Your task to perform on an android device: check android version Image 0: 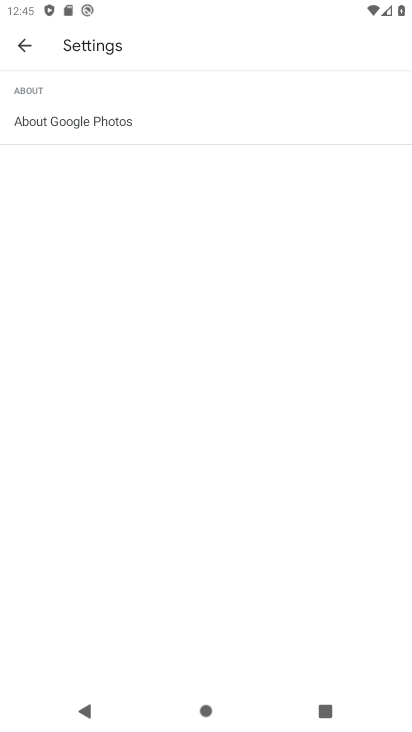
Step 0: press home button
Your task to perform on an android device: check android version Image 1: 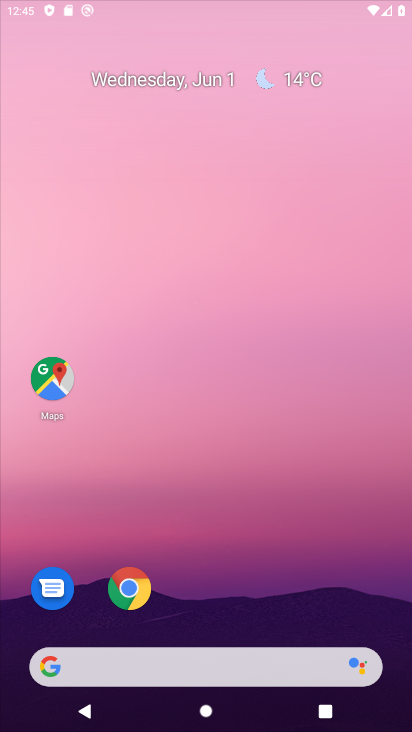
Step 1: drag from (268, 398) to (240, 19)
Your task to perform on an android device: check android version Image 2: 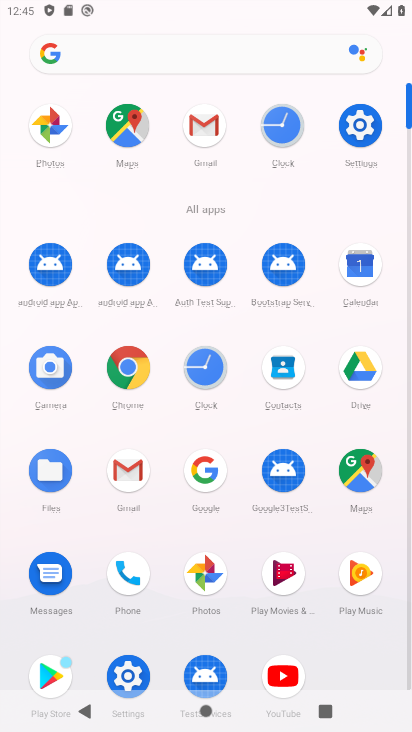
Step 2: click (361, 140)
Your task to perform on an android device: check android version Image 3: 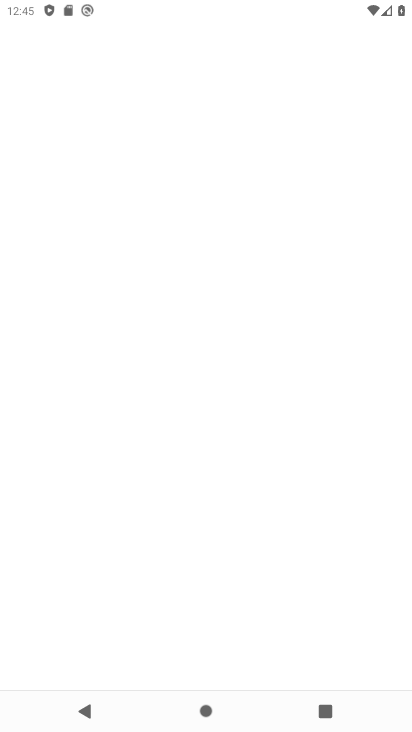
Step 3: drag from (258, 552) to (257, 85)
Your task to perform on an android device: check android version Image 4: 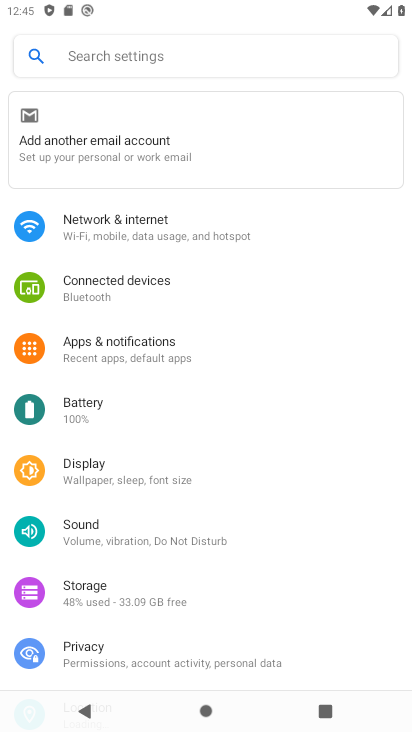
Step 4: drag from (250, 634) to (317, 63)
Your task to perform on an android device: check android version Image 5: 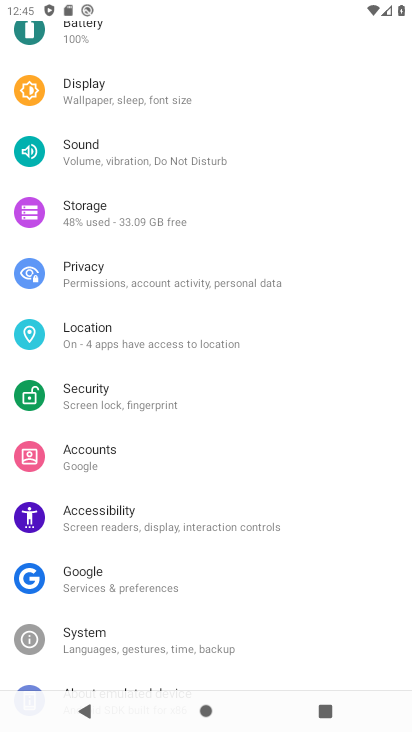
Step 5: drag from (212, 537) to (221, 40)
Your task to perform on an android device: check android version Image 6: 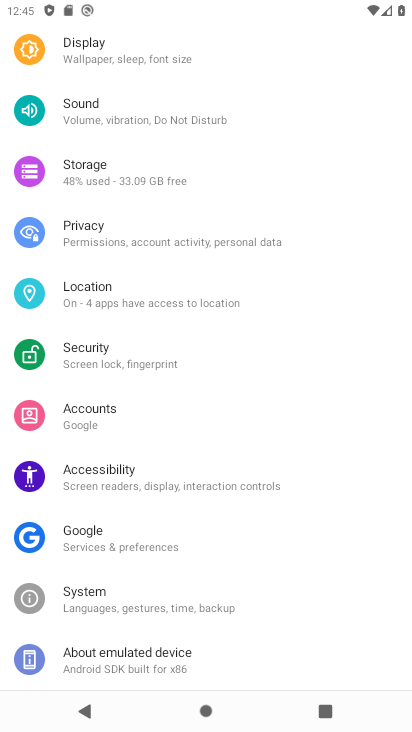
Step 6: click (158, 646)
Your task to perform on an android device: check android version Image 7: 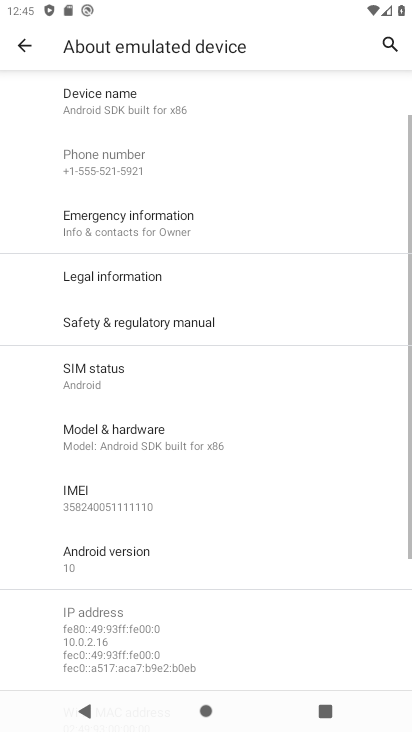
Step 7: click (210, 548)
Your task to perform on an android device: check android version Image 8: 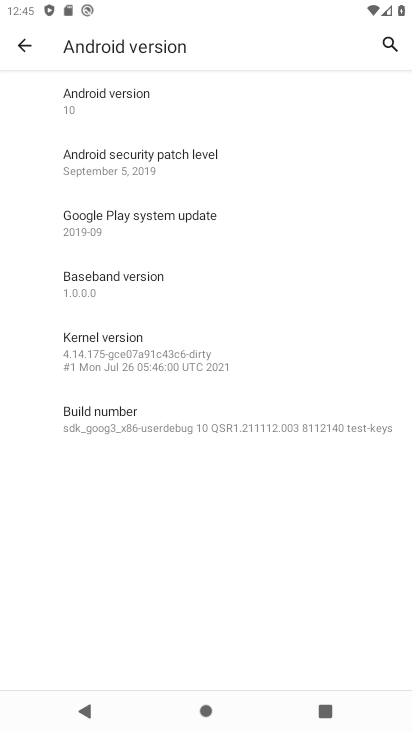
Step 8: task complete